Your task to perform on an android device: uninstall "Google Sheets" Image 0: 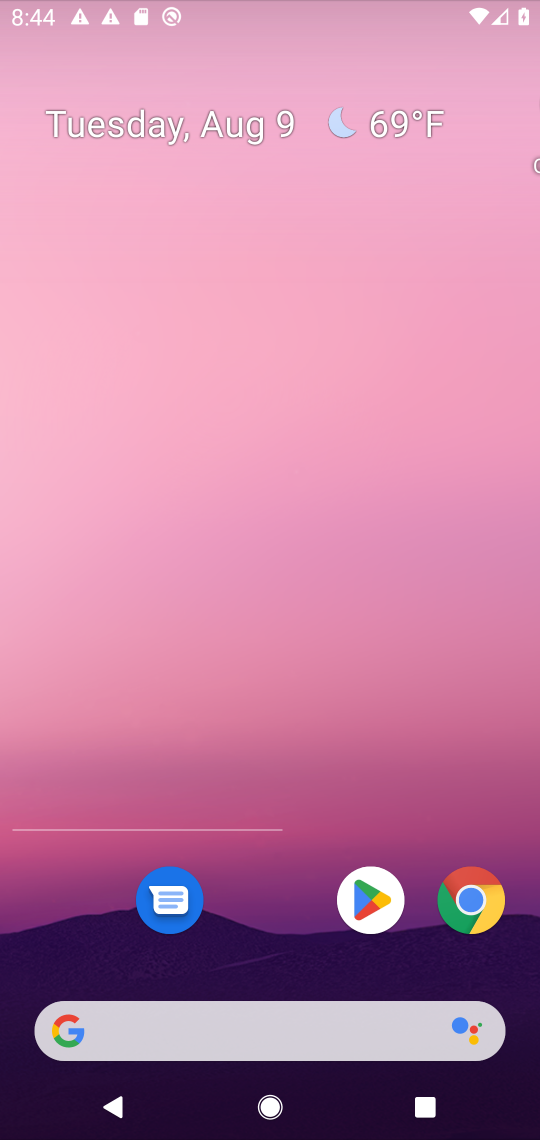
Step 0: press home button
Your task to perform on an android device: uninstall "Google Sheets" Image 1: 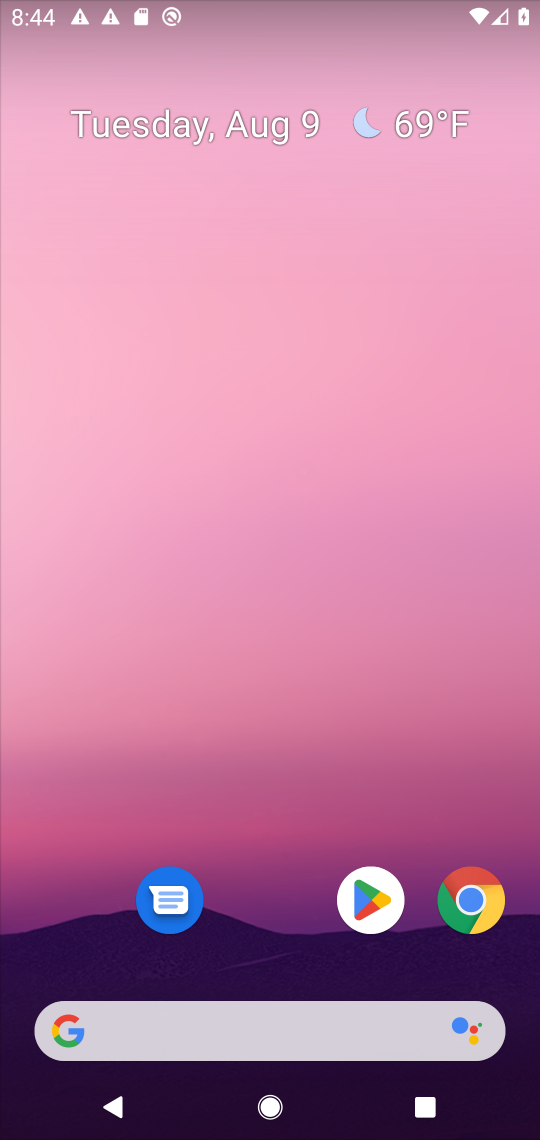
Step 1: click (367, 927)
Your task to perform on an android device: uninstall "Google Sheets" Image 2: 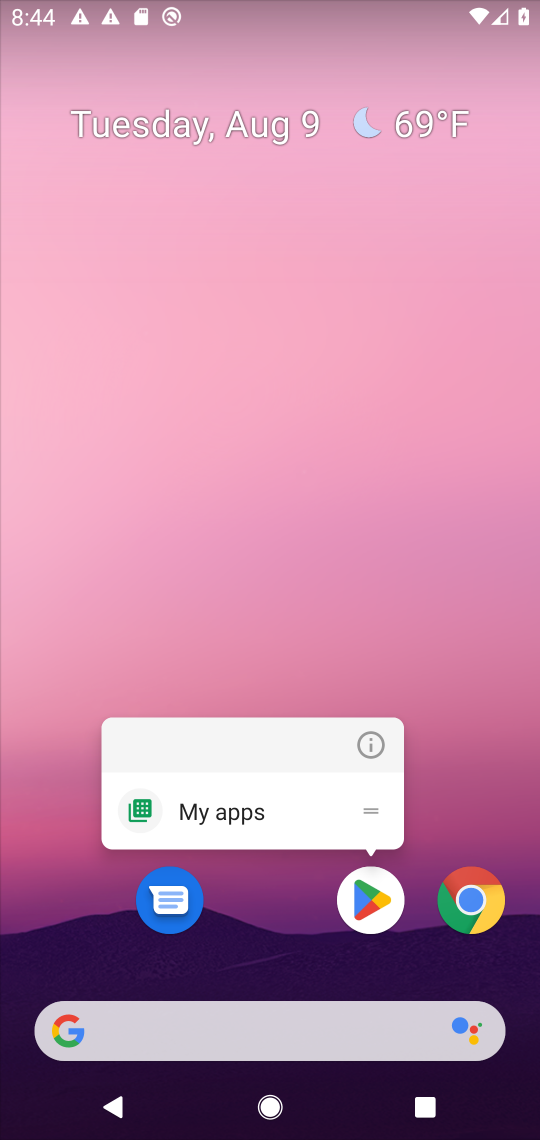
Step 2: click (356, 915)
Your task to perform on an android device: uninstall "Google Sheets" Image 3: 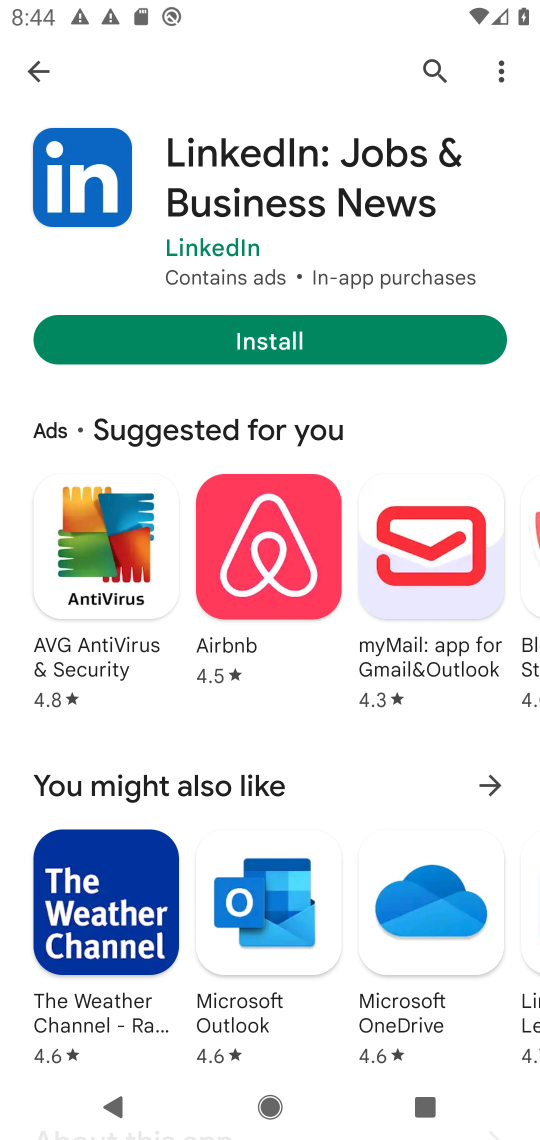
Step 3: click (434, 74)
Your task to perform on an android device: uninstall "Google Sheets" Image 4: 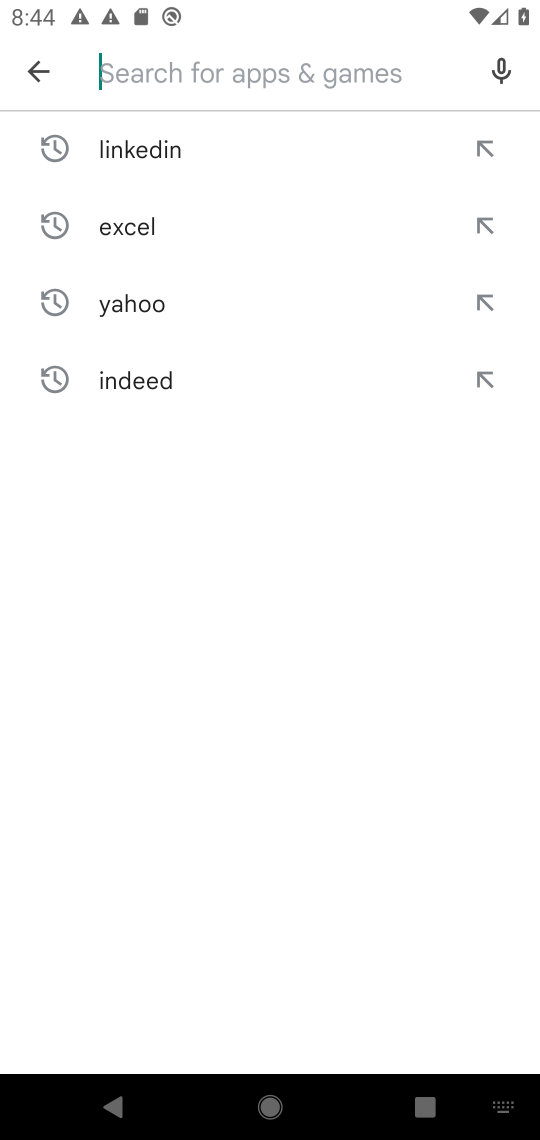
Step 4: type "google sheet"
Your task to perform on an android device: uninstall "Google Sheets" Image 5: 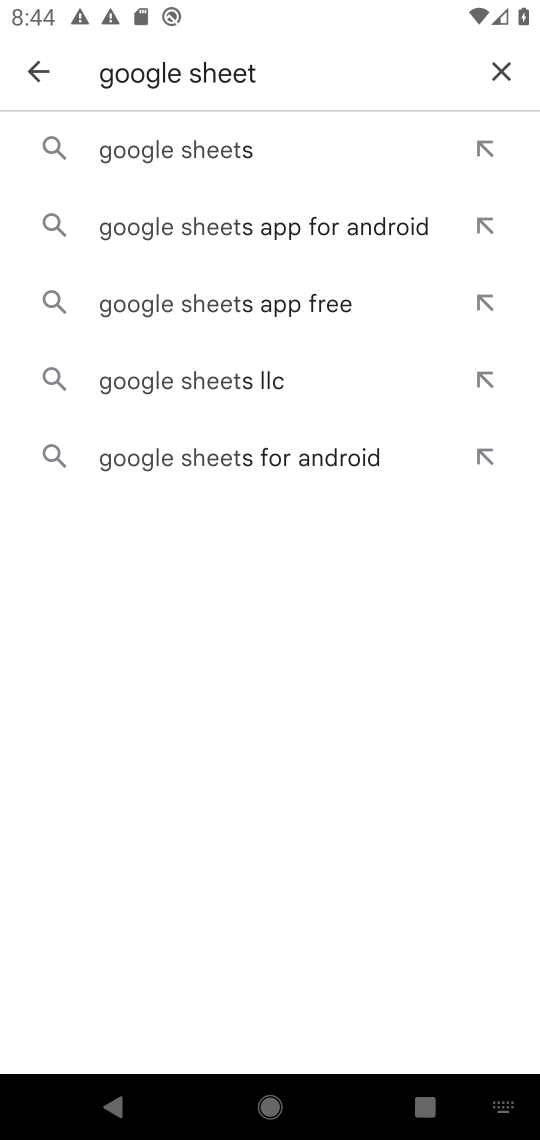
Step 5: click (232, 141)
Your task to perform on an android device: uninstall "Google Sheets" Image 6: 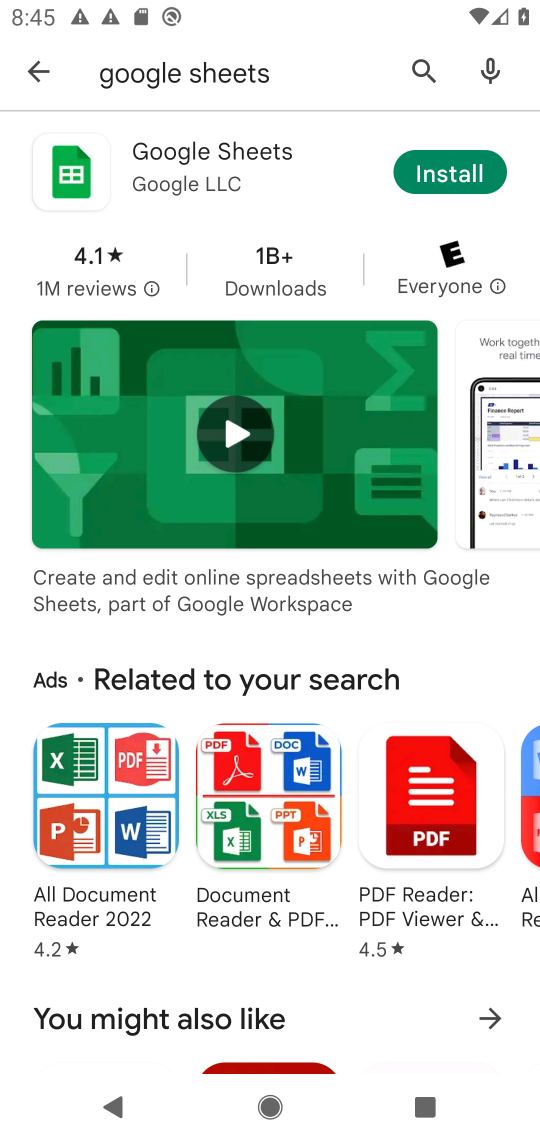
Step 6: task complete